Your task to perform on an android device: Go to sound settings Image 0: 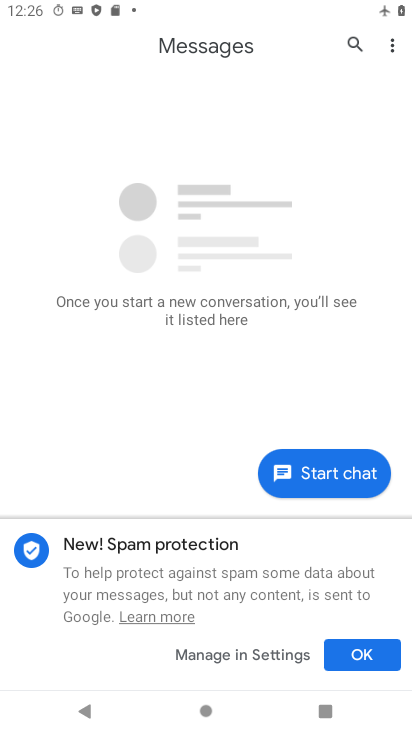
Step 0: press home button
Your task to perform on an android device: Go to sound settings Image 1: 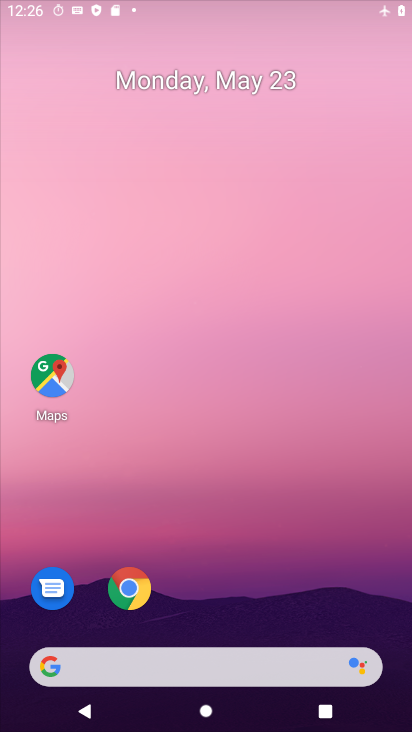
Step 1: drag from (231, 718) to (246, 176)
Your task to perform on an android device: Go to sound settings Image 2: 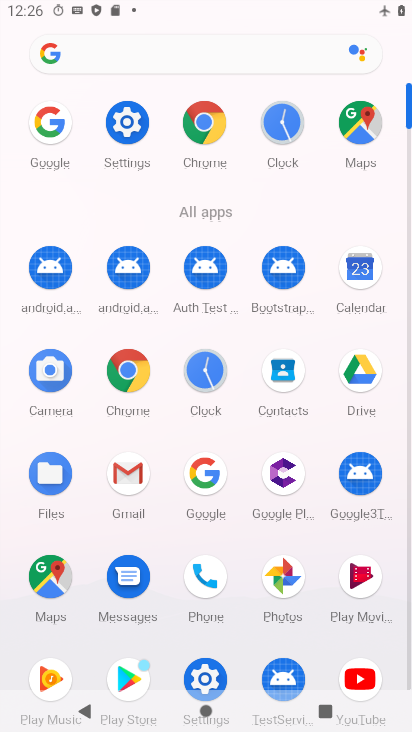
Step 2: click (131, 118)
Your task to perform on an android device: Go to sound settings Image 3: 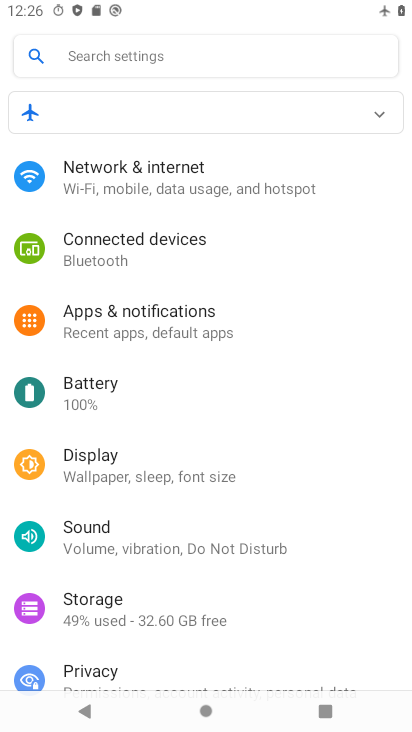
Step 3: task complete